Your task to perform on an android device: toggle notifications settings in the gmail app Image 0: 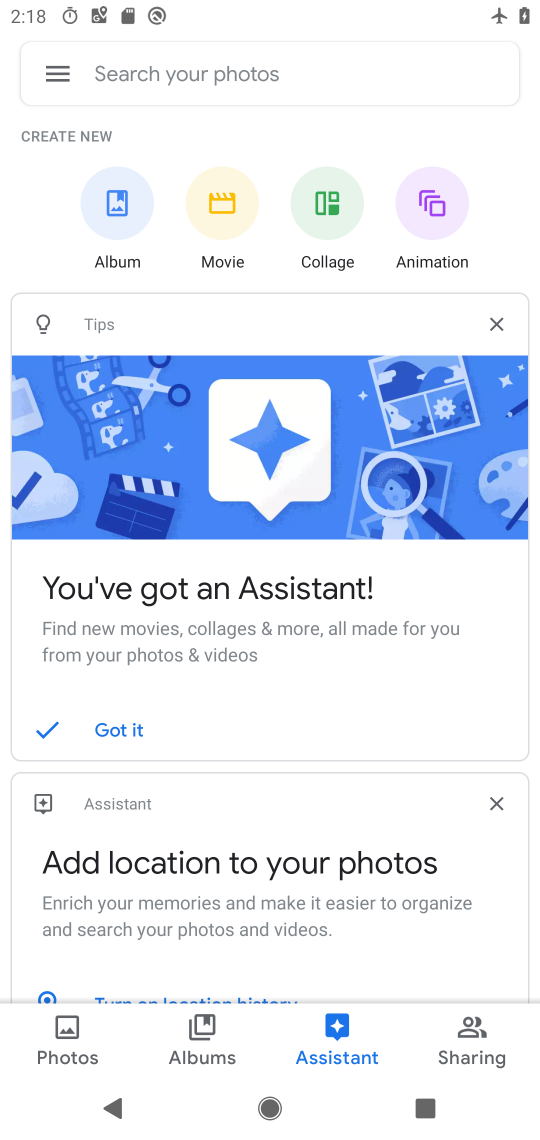
Step 0: press home button
Your task to perform on an android device: toggle notifications settings in the gmail app Image 1: 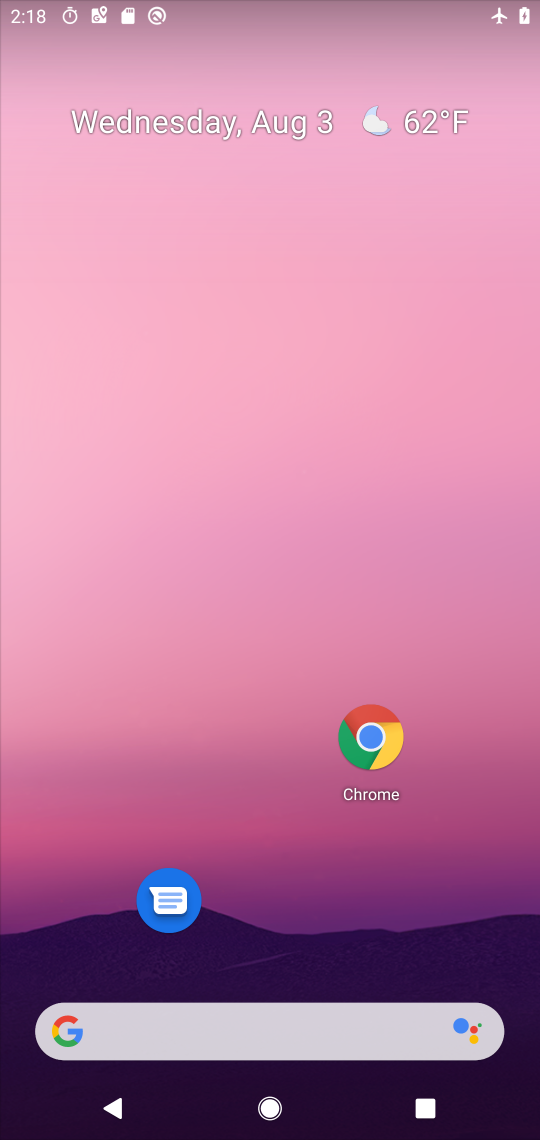
Step 1: drag from (331, 880) to (317, 194)
Your task to perform on an android device: toggle notifications settings in the gmail app Image 2: 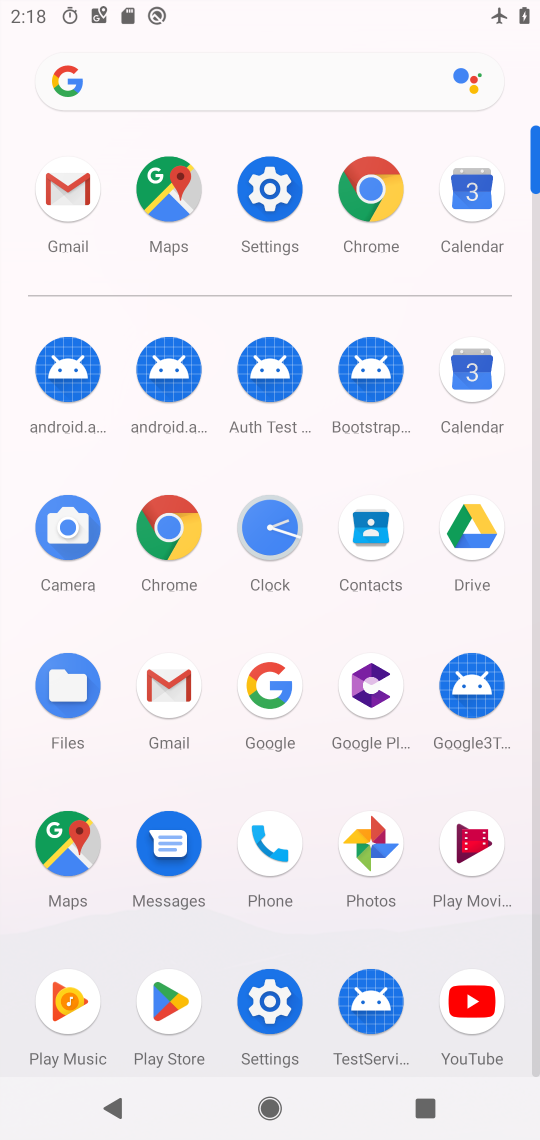
Step 2: click (178, 673)
Your task to perform on an android device: toggle notifications settings in the gmail app Image 3: 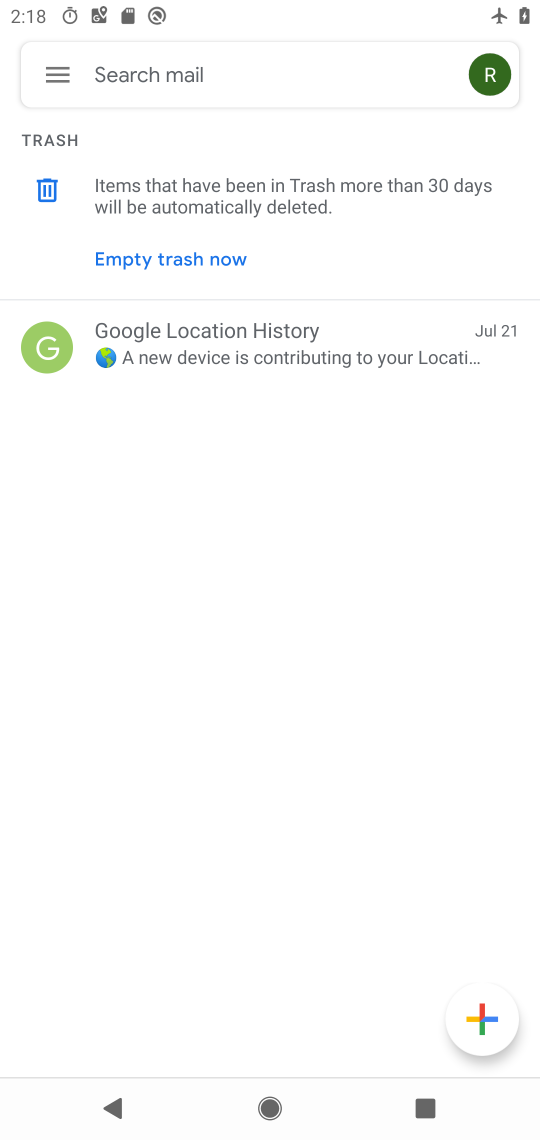
Step 3: click (54, 72)
Your task to perform on an android device: toggle notifications settings in the gmail app Image 4: 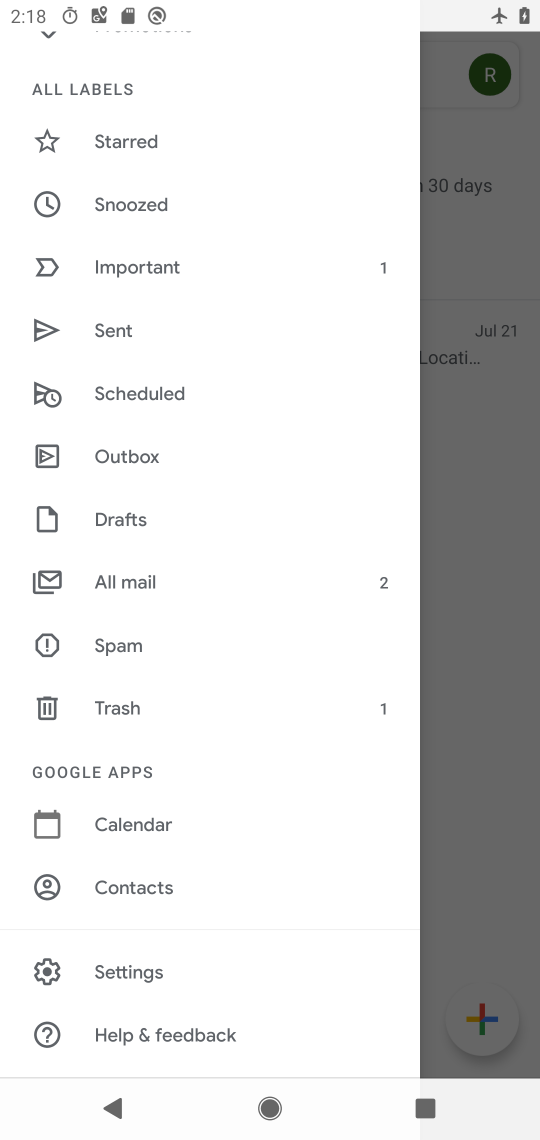
Step 4: click (131, 962)
Your task to perform on an android device: toggle notifications settings in the gmail app Image 5: 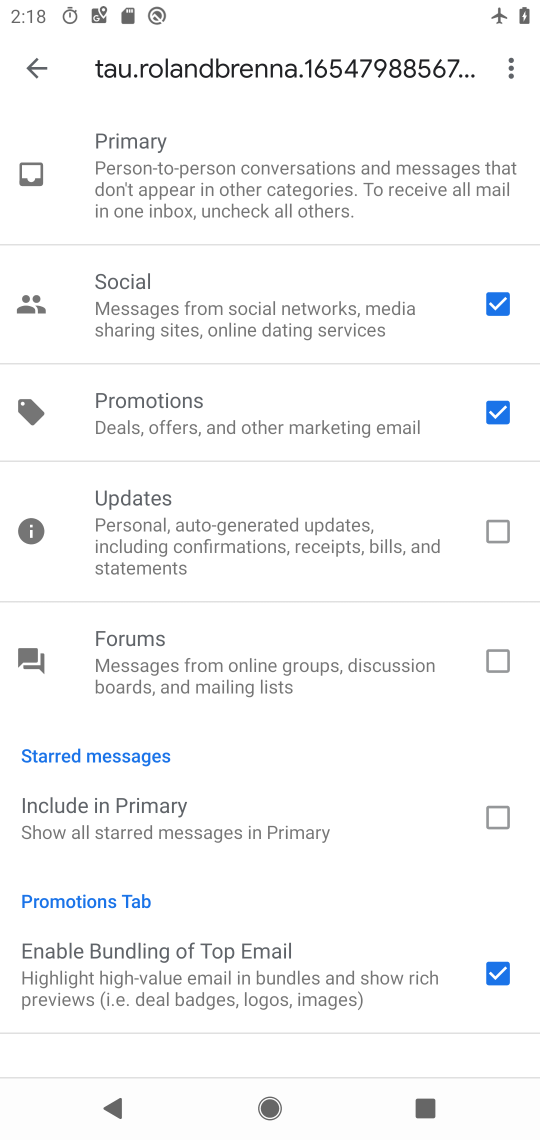
Step 5: click (25, 65)
Your task to perform on an android device: toggle notifications settings in the gmail app Image 6: 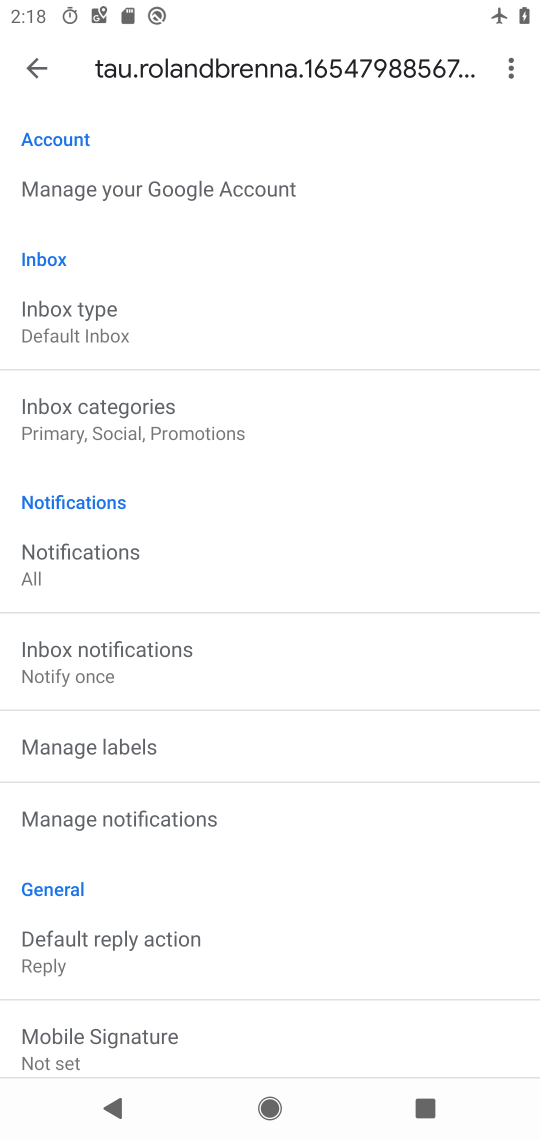
Step 6: click (141, 812)
Your task to perform on an android device: toggle notifications settings in the gmail app Image 7: 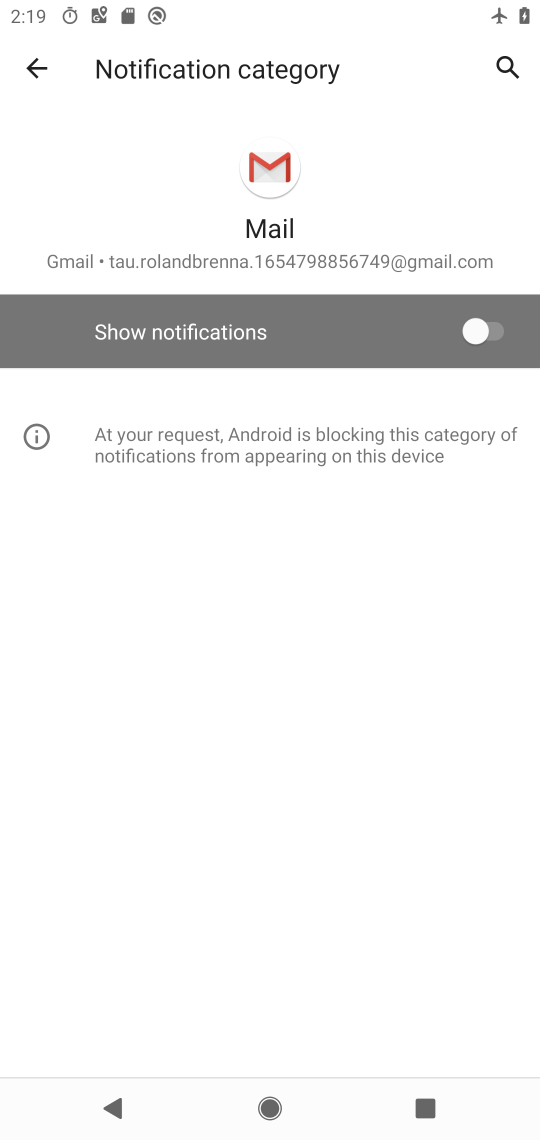
Step 7: click (440, 319)
Your task to perform on an android device: toggle notifications settings in the gmail app Image 8: 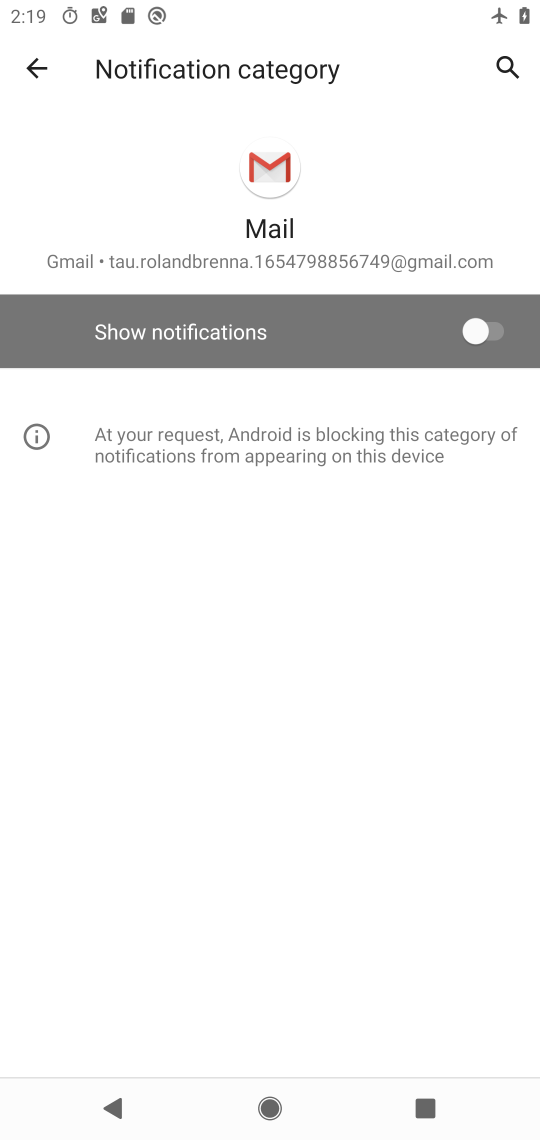
Step 8: click (469, 326)
Your task to perform on an android device: toggle notifications settings in the gmail app Image 9: 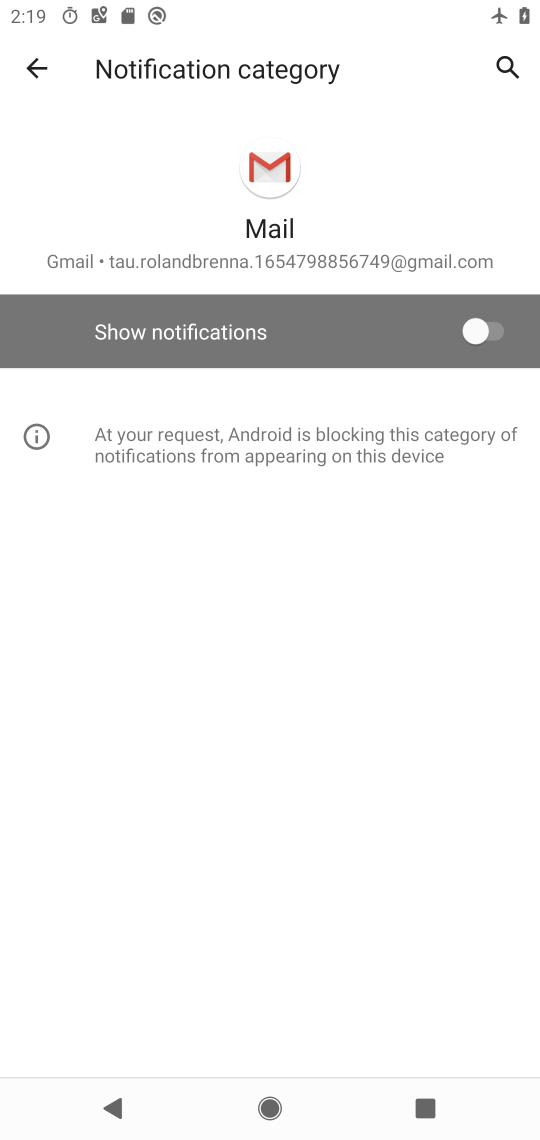
Step 9: click (475, 323)
Your task to perform on an android device: toggle notifications settings in the gmail app Image 10: 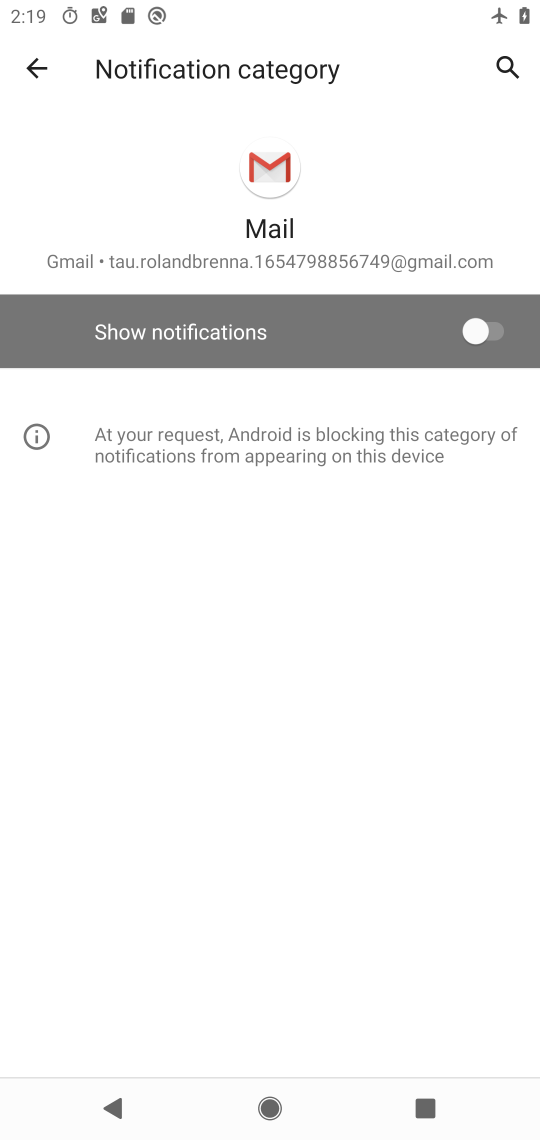
Step 10: click (475, 323)
Your task to perform on an android device: toggle notifications settings in the gmail app Image 11: 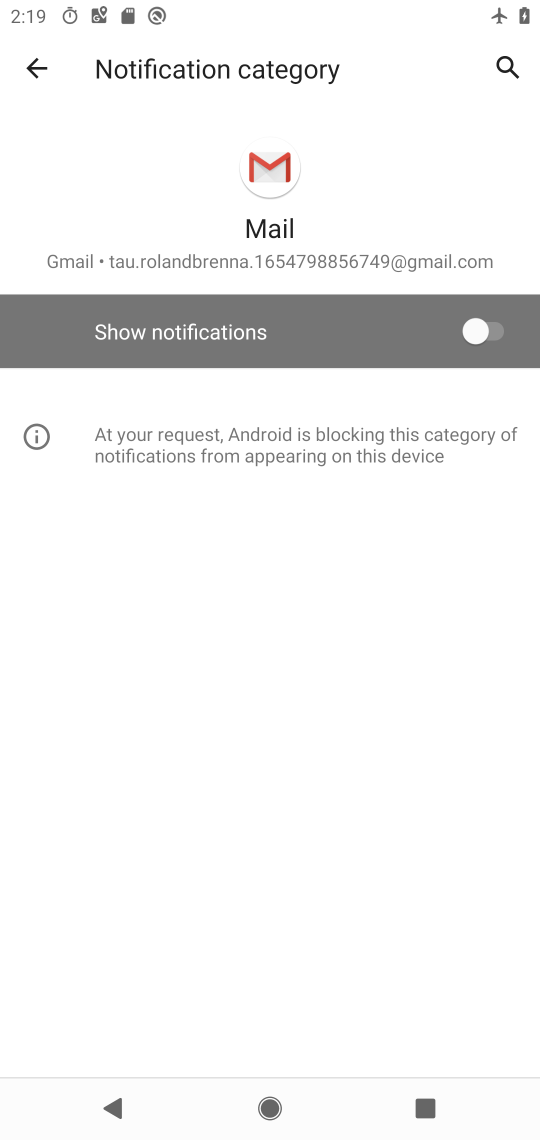
Step 11: click (473, 330)
Your task to perform on an android device: toggle notifications settings in the gmail app Image 12: 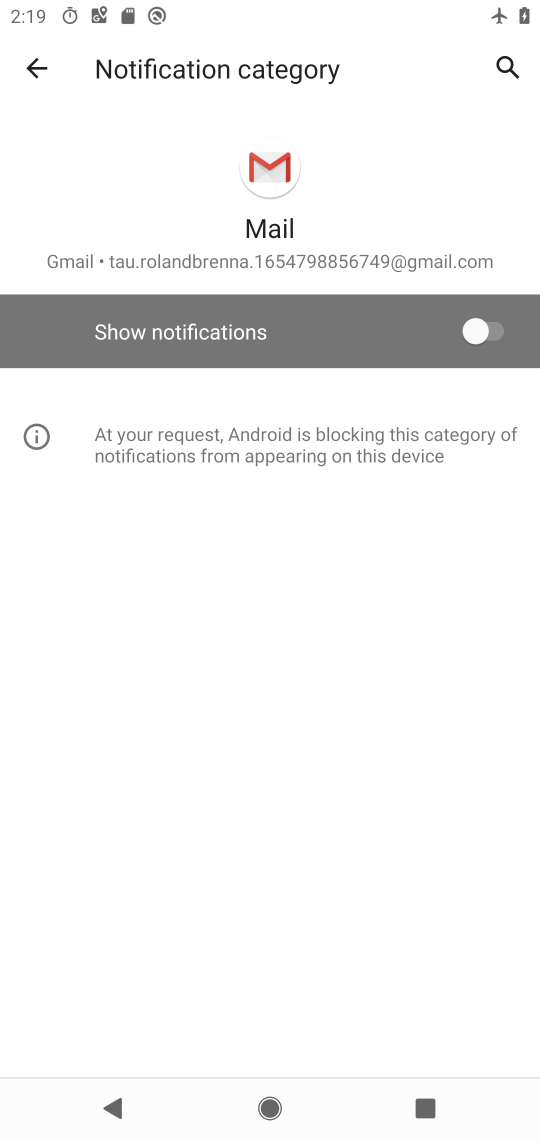
Step 12: click (442, 317)
Your task to perform on an android device: toggle notifications settings in the gmail app Image 13: 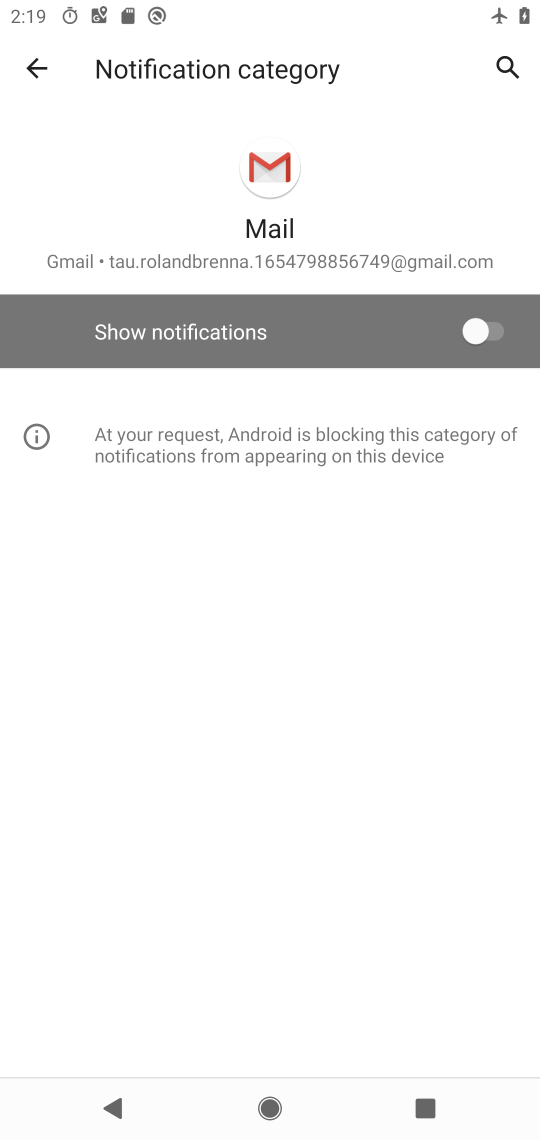
Step 13: task complete